Your task to perform on an android device: choose inbox layout in the gmail app Image 0: 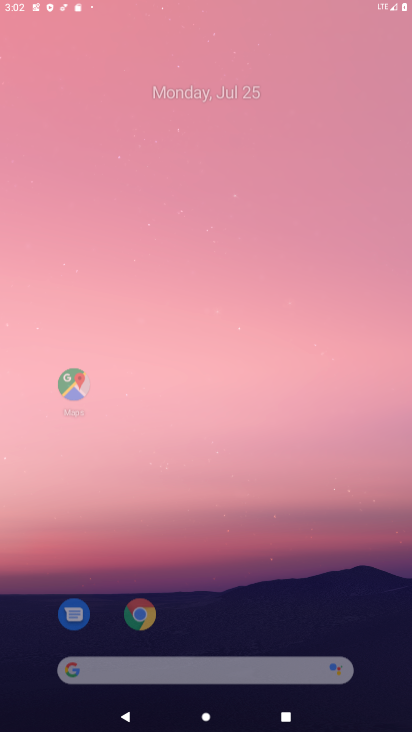
Step 0: drag from (196, 720) to (278, 634)
Your task to perform on an android device: choose inbox layout in the gmail app Image 1: 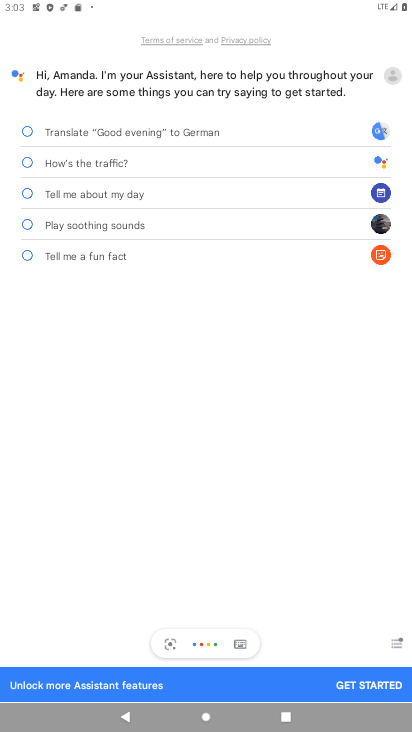
Step 1: press home button
Your task to perform on an android device: choose inbox layout in the gmail app Image 2: 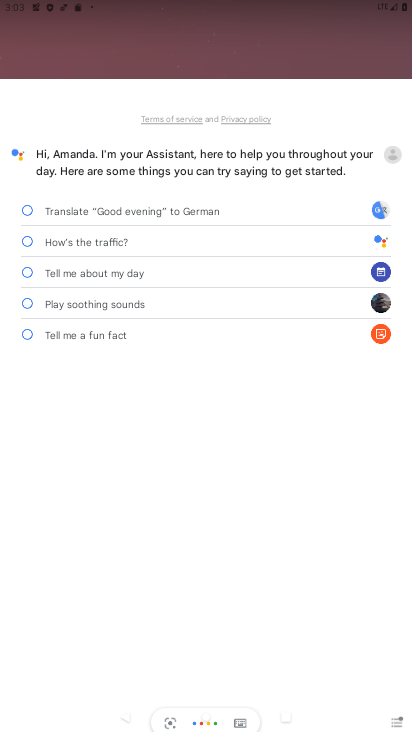
Step 2: press home button
Your task to perform on an android device: choose inbox layout in the gmail app Image 3: 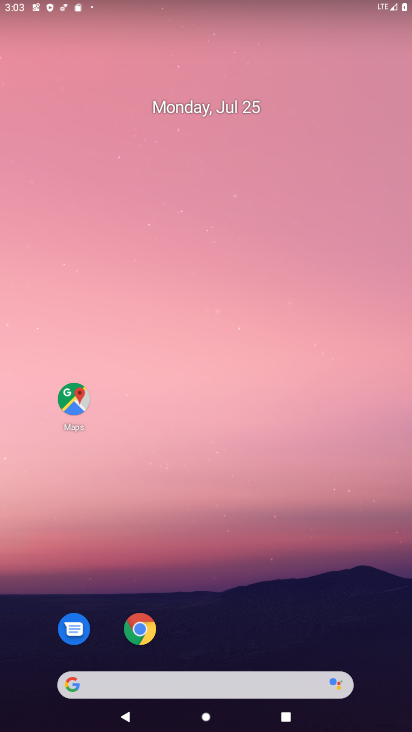
Step 3: drag from (198, 629) to (265, 105)
Your task to perform on an android device: choose inbox layout in the gmail app Image 4: 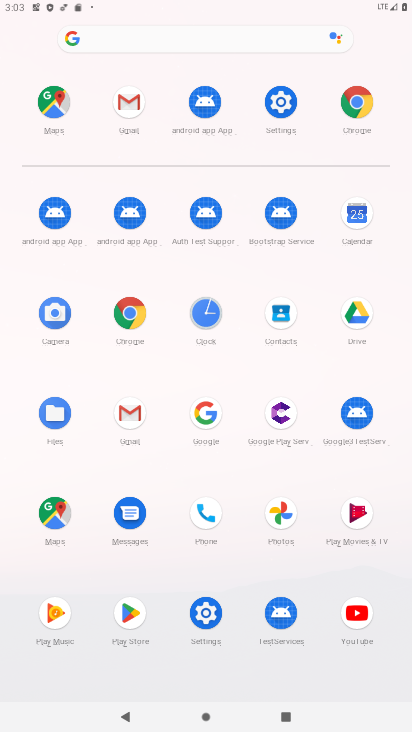
Step 4: click (132, 408)
Your task to perform on an android device: choose inbox layout in the gmail app Image 5: 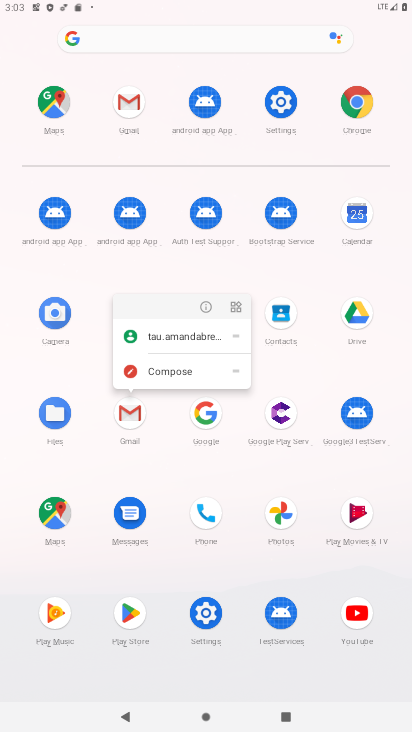
Step 5: click (205, 304)
Your task to perform on an android device: choose inbox layout in the gmail app Image 6: 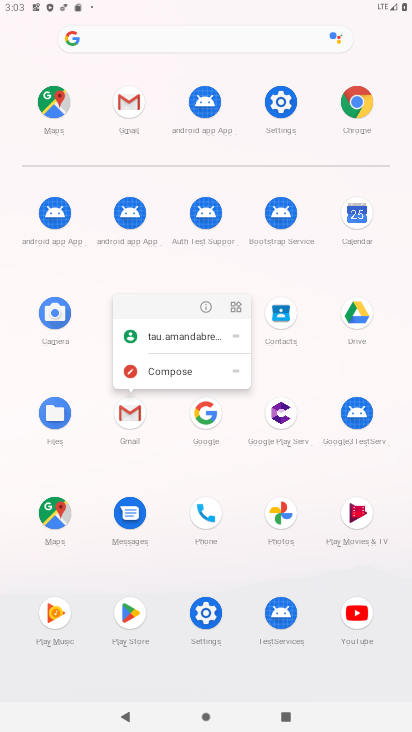
Step 6: click (205, 304)
Your task to perform on an android device: choose inbox layout in the gmail app Image 7: 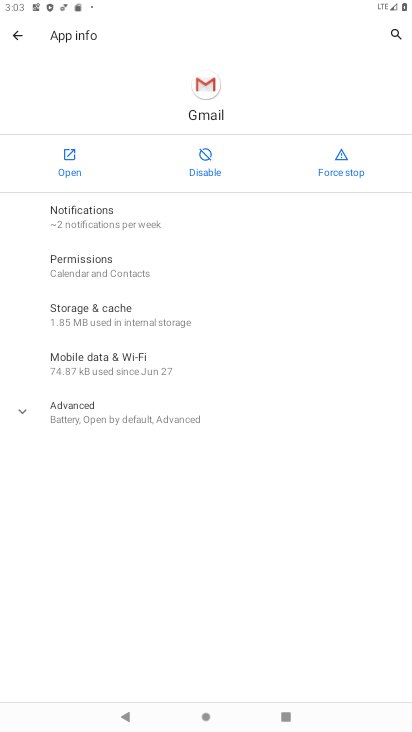
Step 7: click (62, 157)
Your task to perform on an android device: choose inbox layout in the gmail app Image 8: 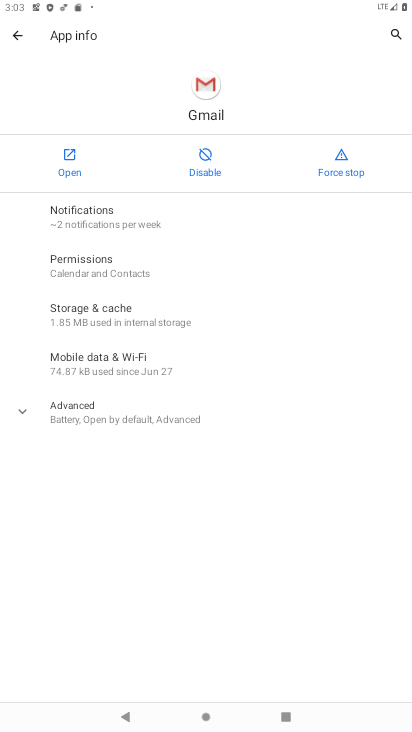
Step 8: click (62, 157)
Your task to perform on an android device: choose inbox layout in the gmail app Image 9: 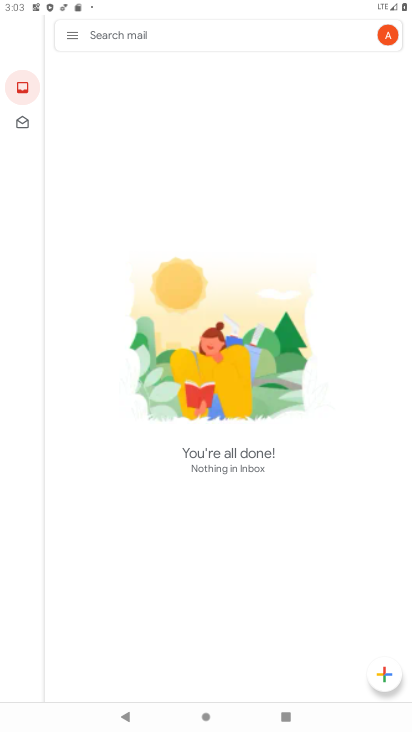
Step 9: click (79, 38)
Your task to perform on an android device: choose inbox layout in the gmail app Image 10: 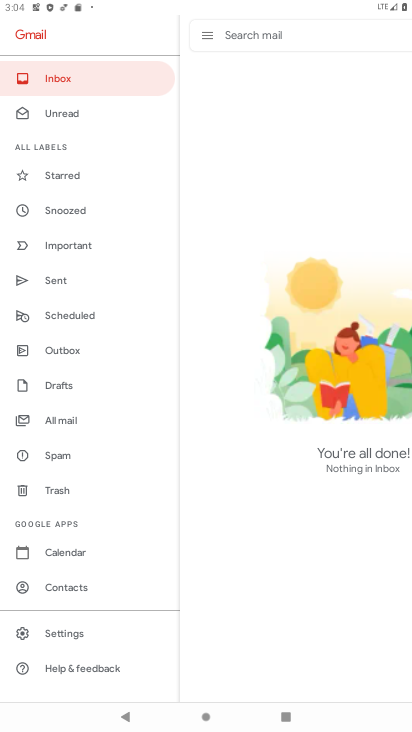
Step 10: click (71, 68)
Your task to perform on an android device: choose inbox layout in the gmail app Image 11: 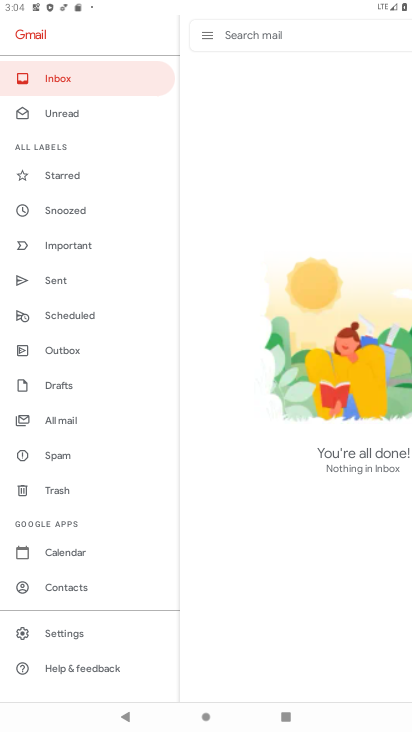
Step 11: task complete